Your task to perform on an android device: change the clock display to analog Image 0: 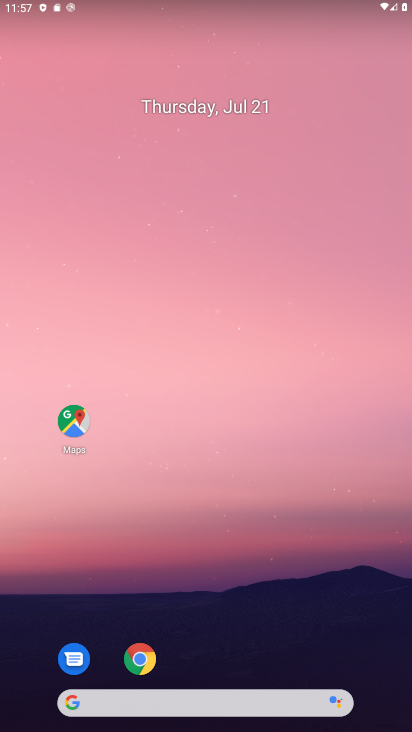
Step 0: drag from (244, 616) to (244, 247)
Your task to perform on an android device: change the clock display to analog Image 1: 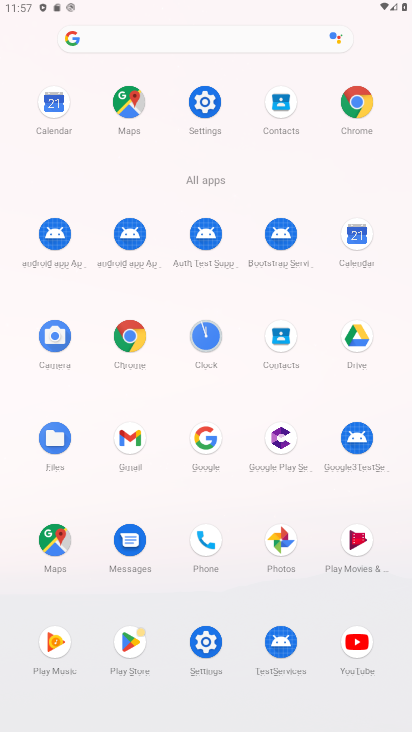
Step 1: click (215, 365)
Your task to perform on an android device: change the clock display to analog Image 2: 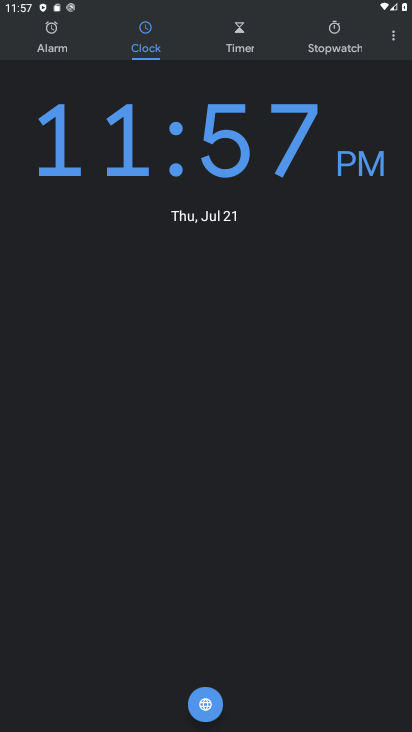
Step 2: click (393, 38)
Your task to perform on an android device: change the clock display to analog Image 3: 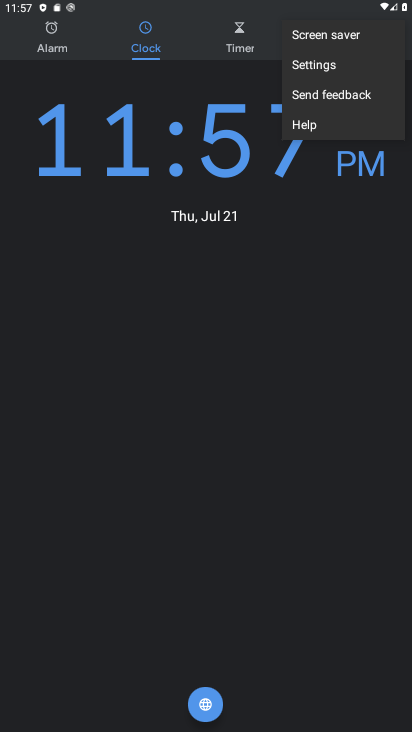
Step 3: click (315, 69)
Your task to perform on an android device: change the clock display to analog Image 4: 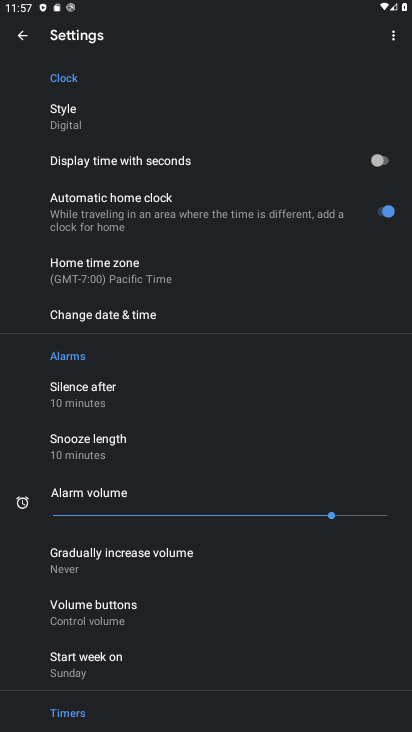
Step 4: task complete